Your task to perform on an android device: turn notification dots off Image 0: 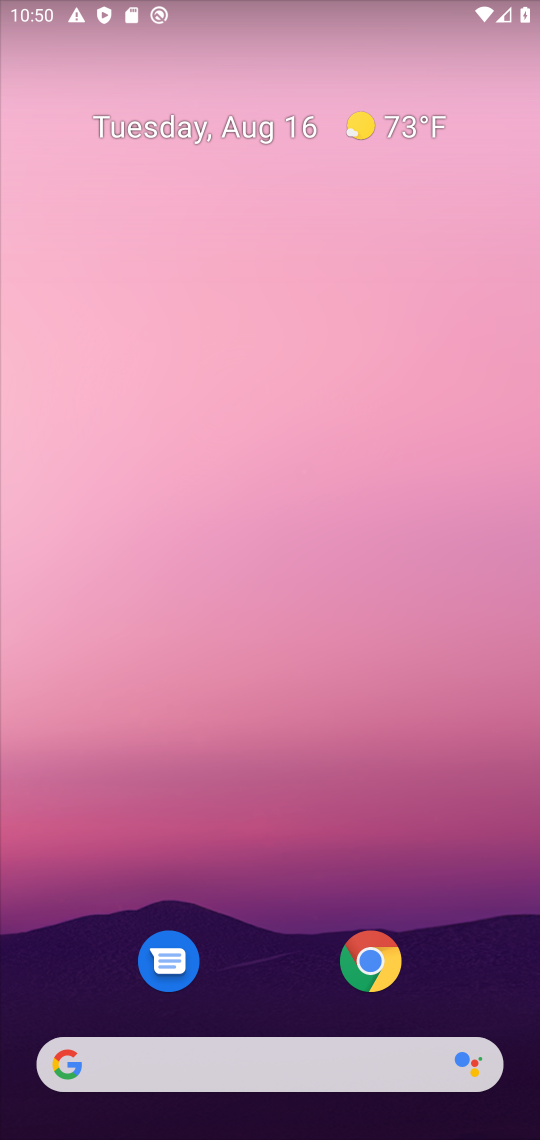
Step 0: drag from (303, 526) to (308, 384)
Your task to perform on an android device: turn notification dots off Image 1: 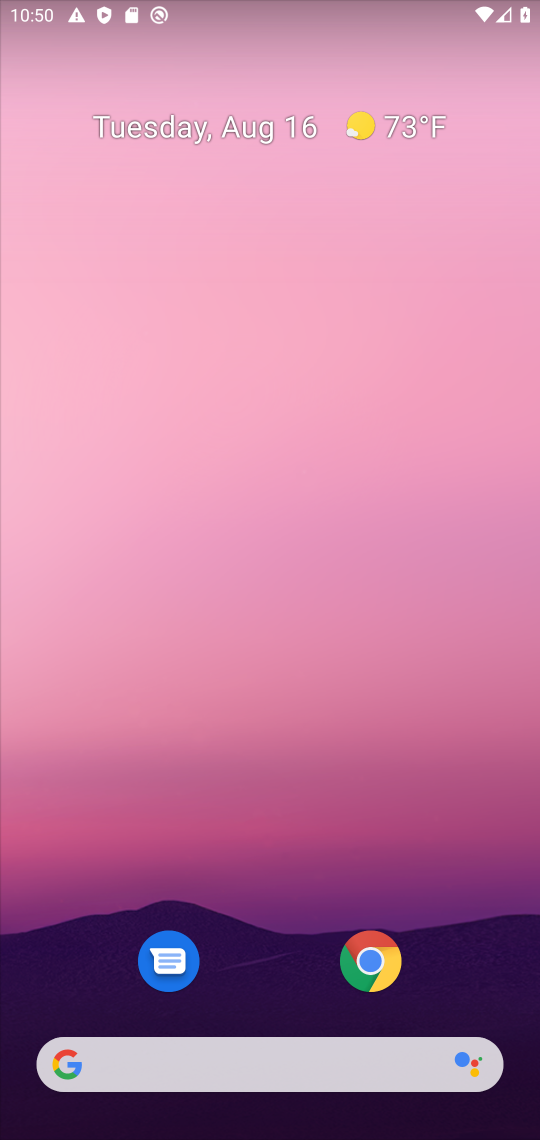
Step 1: drag from (273, 942) to (357, 334)
Your task to perform on an android device: turn notification dots off Image 2: 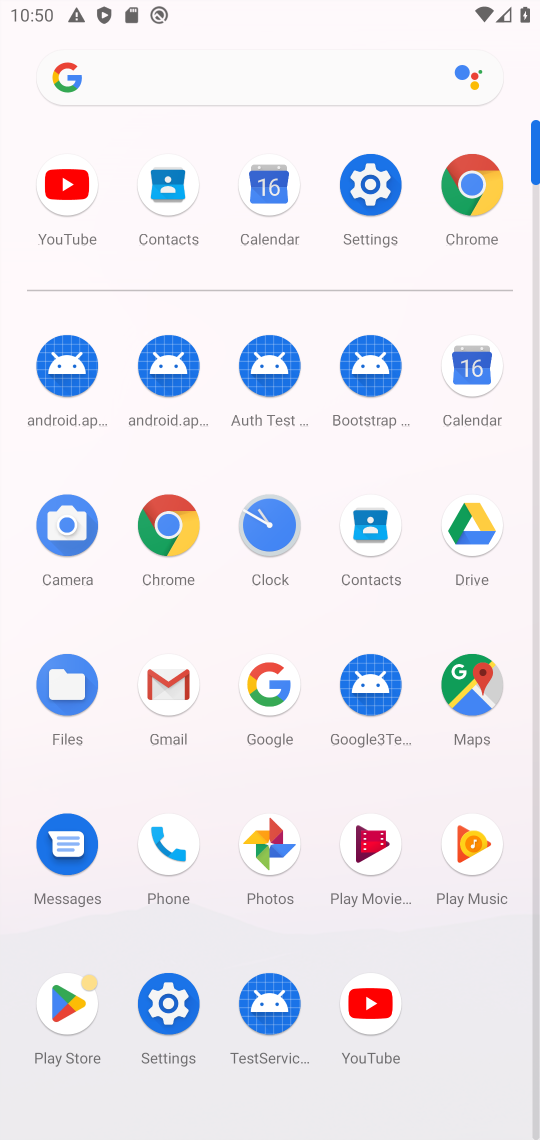
Step 2: click (364, 207)
Your task to perform on an android device: turn notification dots off Image 3: 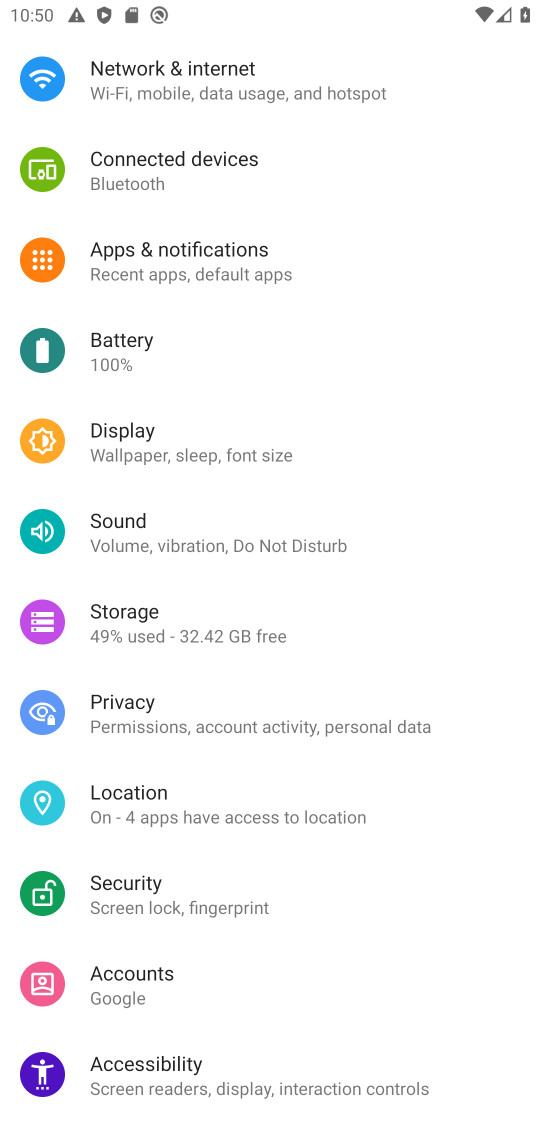
Step 3: task complete